Your task to perform on an android device: find snoozed emails in the gmail app Image 0: 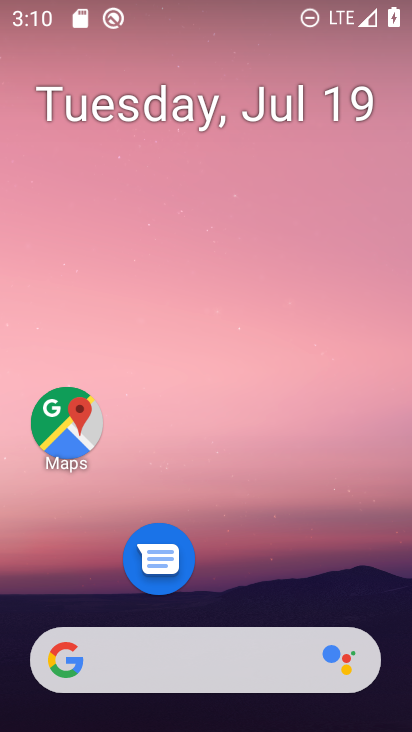
Step 0: drag from (183, 564) to (351, 15)
Your task to perform on an android device: find snoozed emails in the gmail app Image 1: 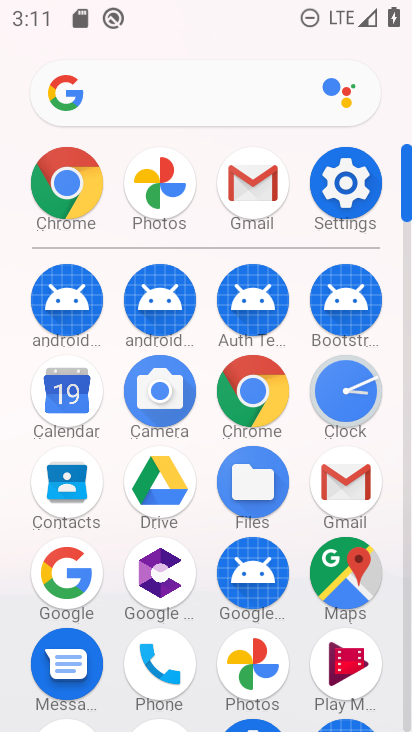
Step 1: click (343, 501)
Your task to perform on an android device: find snoozed emails in the gmail app Image 2: 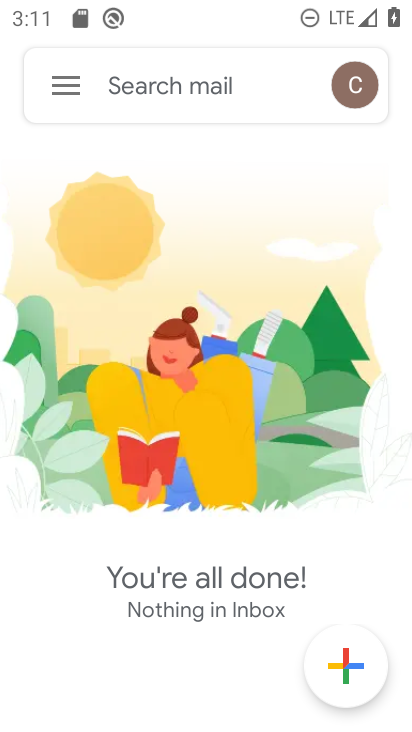
Step 2: click (58, 86)
Your task to perform on an android device: find snoozed emails in the gmail app Image 3: 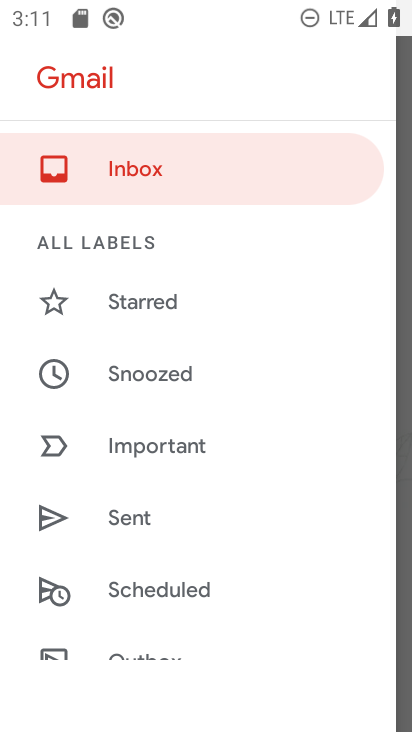
Step 3: drag from (161, 480) to (120, 115)
Your task to perform on an android device: find snoozed emails in the gmail app Image 4: 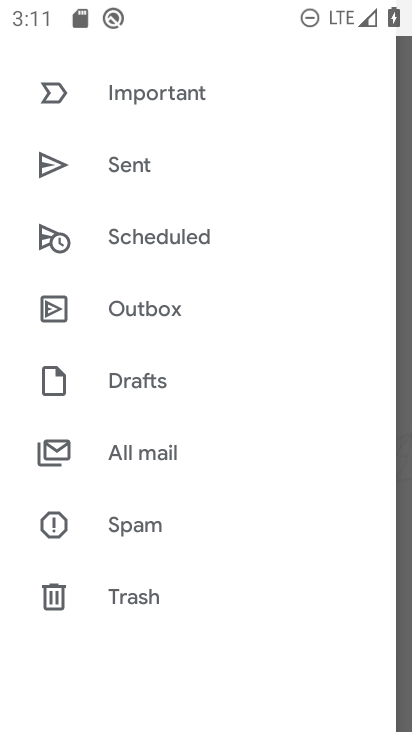
Step 4: drag from (155, 379) to (175, 564)
Your task to perform on an android device: find snoozed emails in the gmail app Image 5: 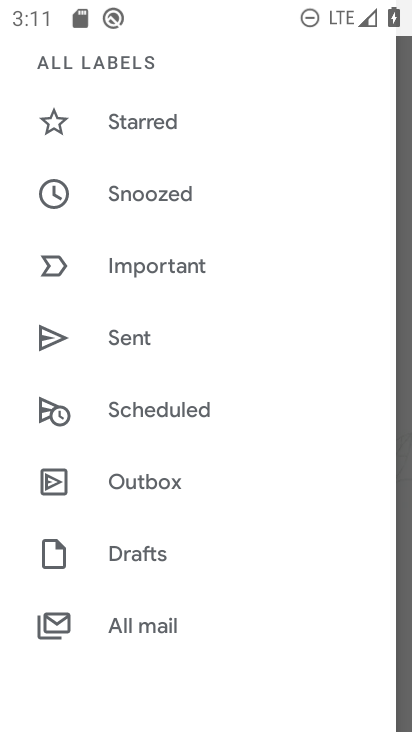
Step 5: click (145, 203)
Your task to perform on an android device: find snoozed emails in the gmail app Image 6: 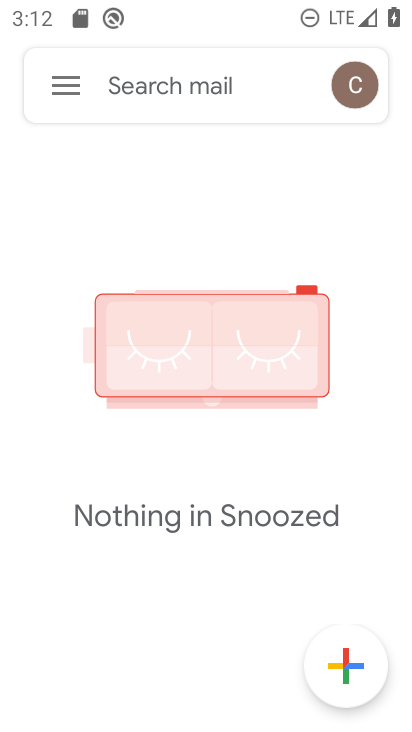
Step 6: task complete